Your task to perform on an android device: Open wifi settings Image 0: 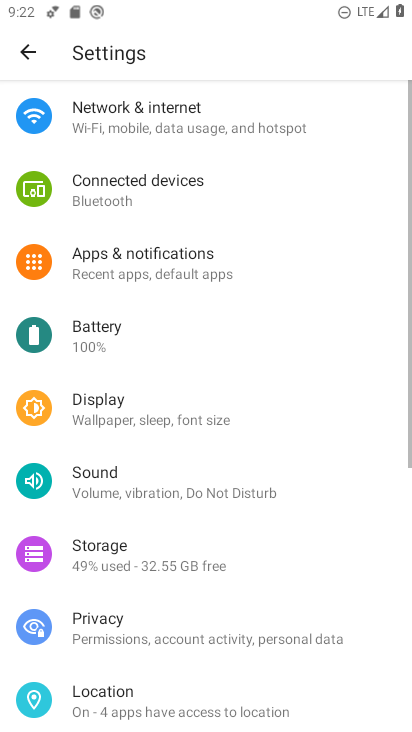
Step 0: press home button
Your task to perform on an android device: Open wifi settings Image 1: 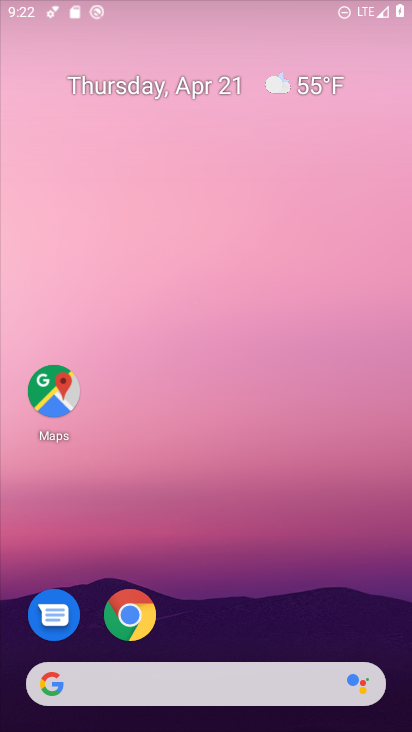
Step 1: drag from (321, 553) to (346, 62)
Your task to perform on an android device: Open wifi settings Image 2: 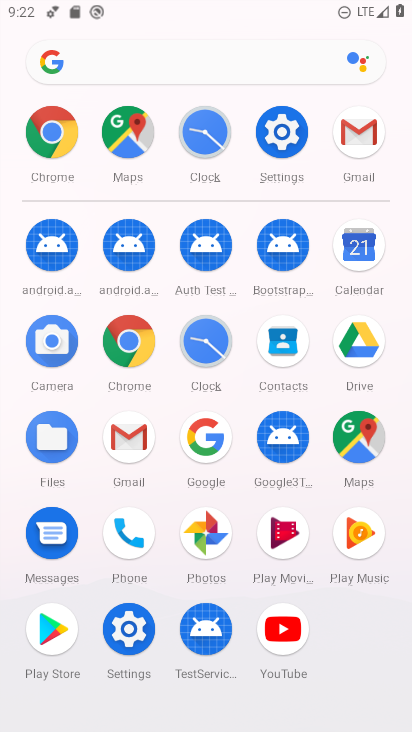
Step 2: click (265, 127)
Your task to perform on an android device: Open wifi settings Image 3: 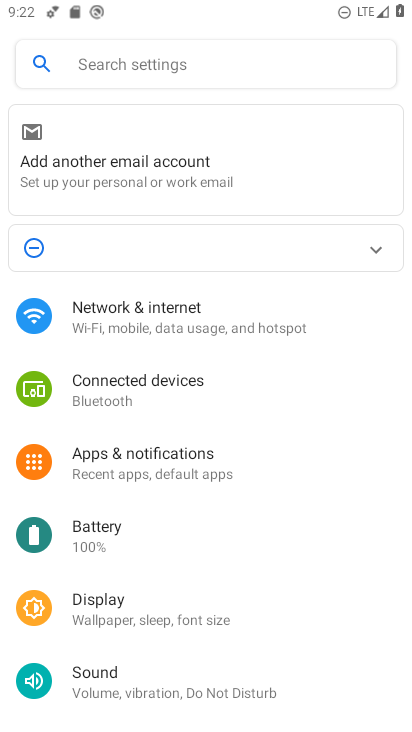
Step 3: click (129, 304)
Your task to perform on an android device: Open wifi settings Image 4: 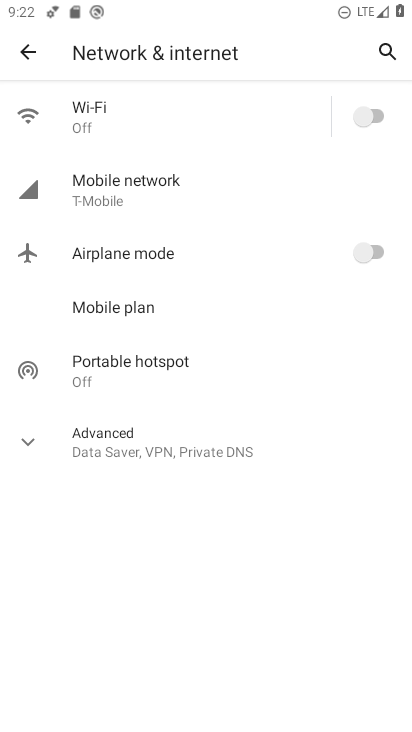
Step 4: click (160, 140)
Your task to perform on an android device: Open wifi settings Image 5: 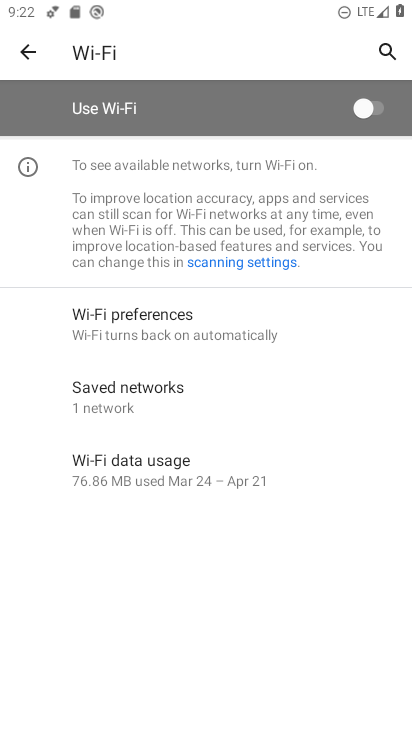
Step 5: task complete